Your task to perform on an android device: Clear the shopping cart on amazon.com. Image 0: 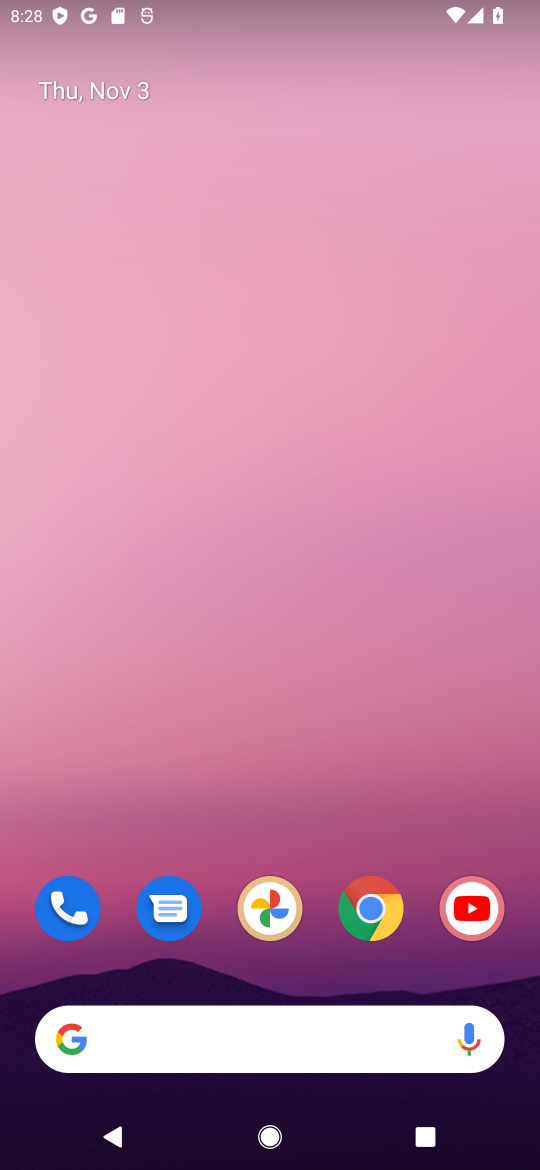
Step 0: click (362, 918)
Your task to perform on an android device: Clear the shopping cart on amazon.com. Image 1: 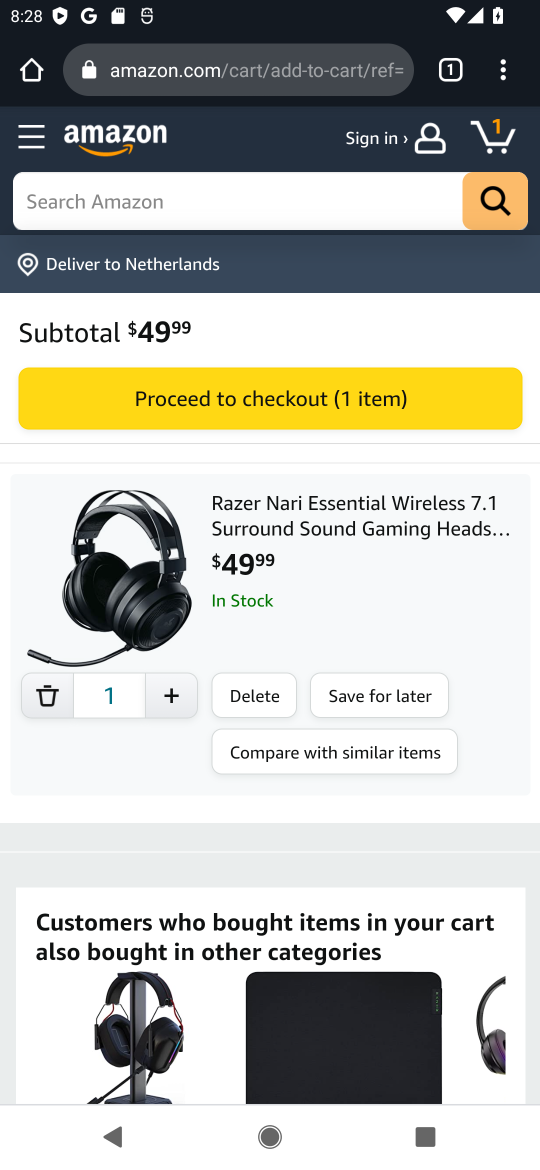
Step 1: click (500, 136)
Your task to perform on an android device: Clear the shopping cart on amazon.com. Image 2: 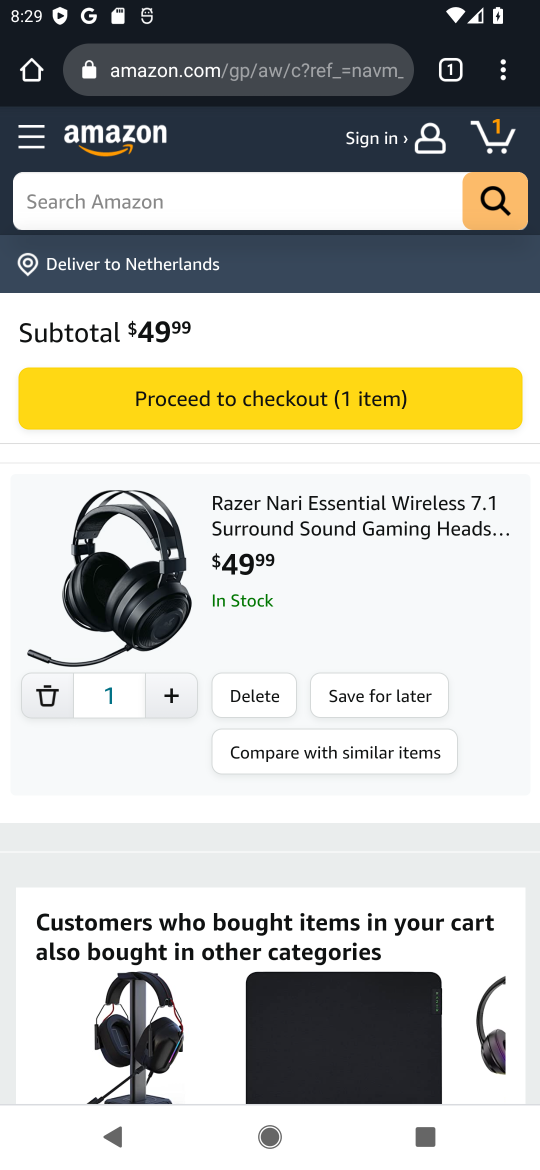
Step 2: click (253, 690)
Your task to perform on an android device: Clear the shopping cart on amazon.com. Image 3: 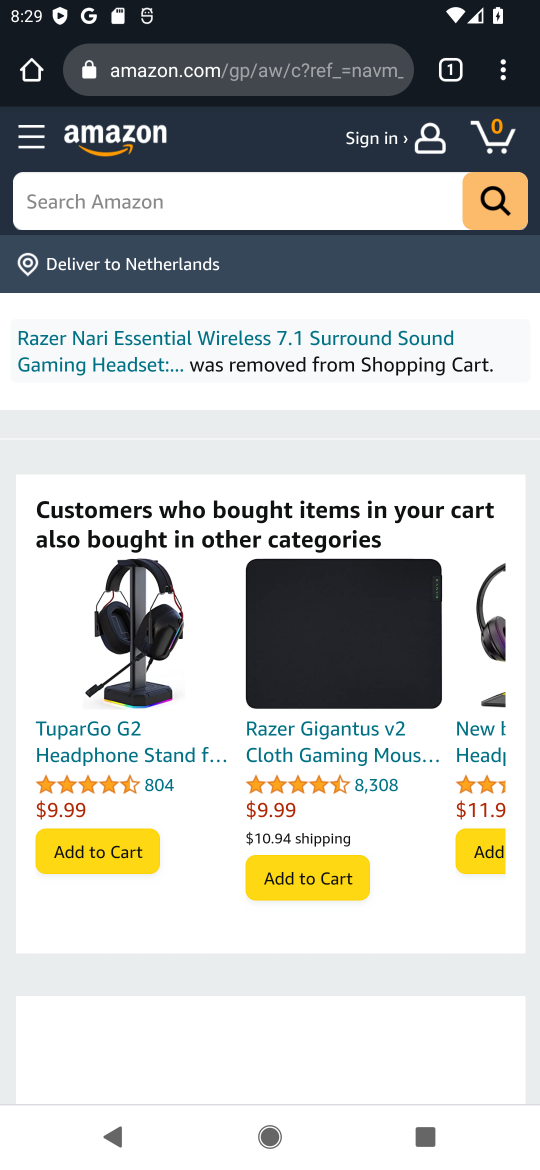
Step 3: task complete